Your task to perform on an android device: add a contact in the contacts app Image 0: 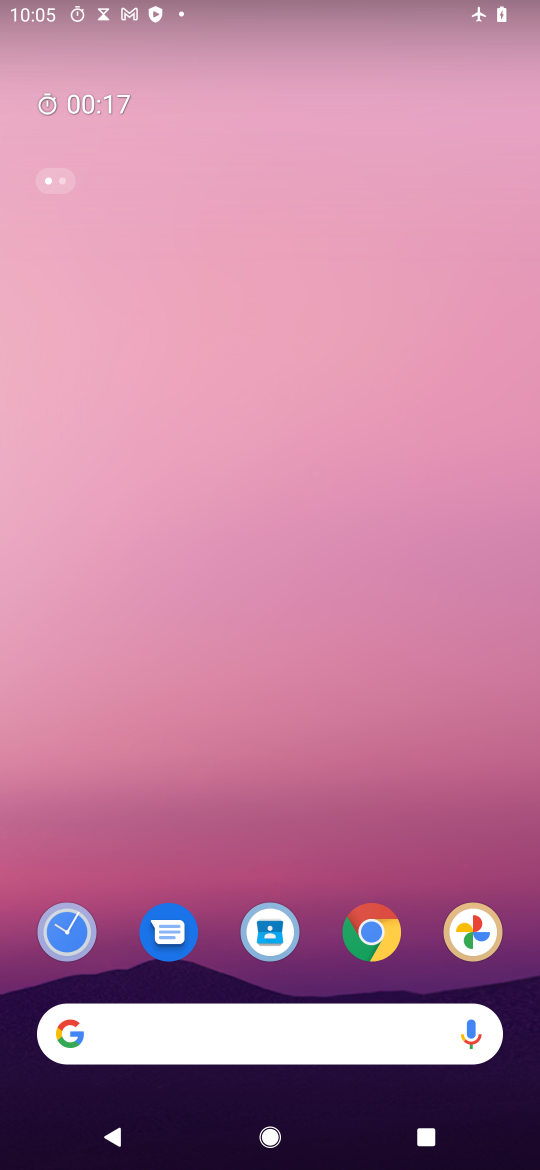
Step 0: drag from (405, 855) to (291, 206)
Your task to perform on an android device: add a contact in the contacts app Image 1: 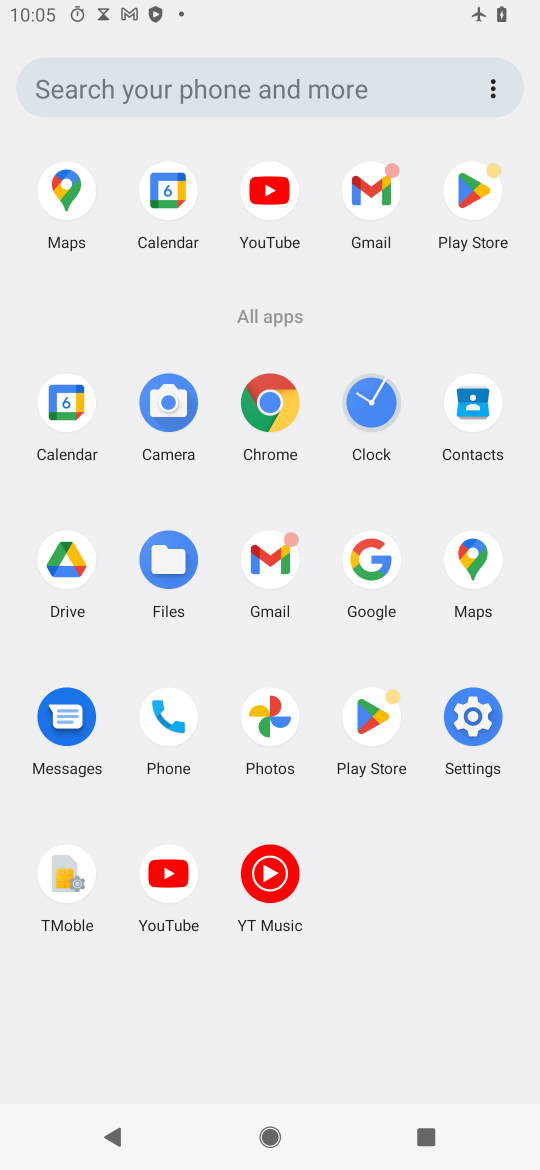
Step 1: click (479, 418)
Your task to perform on an android device: add a contact in the contacts app Image 2: 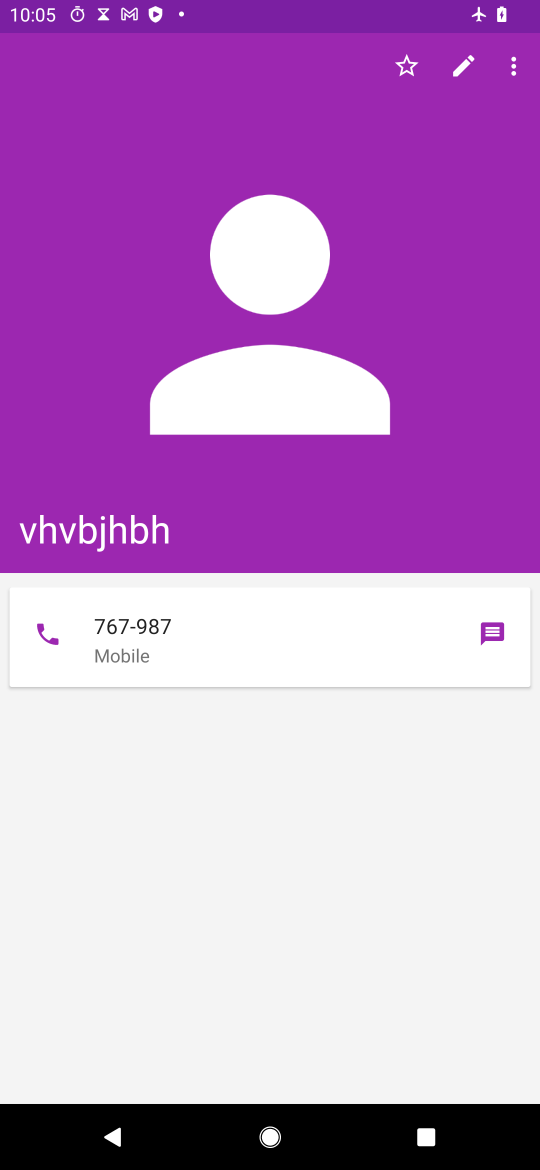
Step 2: press back button
Your task to perform on an android device: add a contact in the contacts app Image 3: 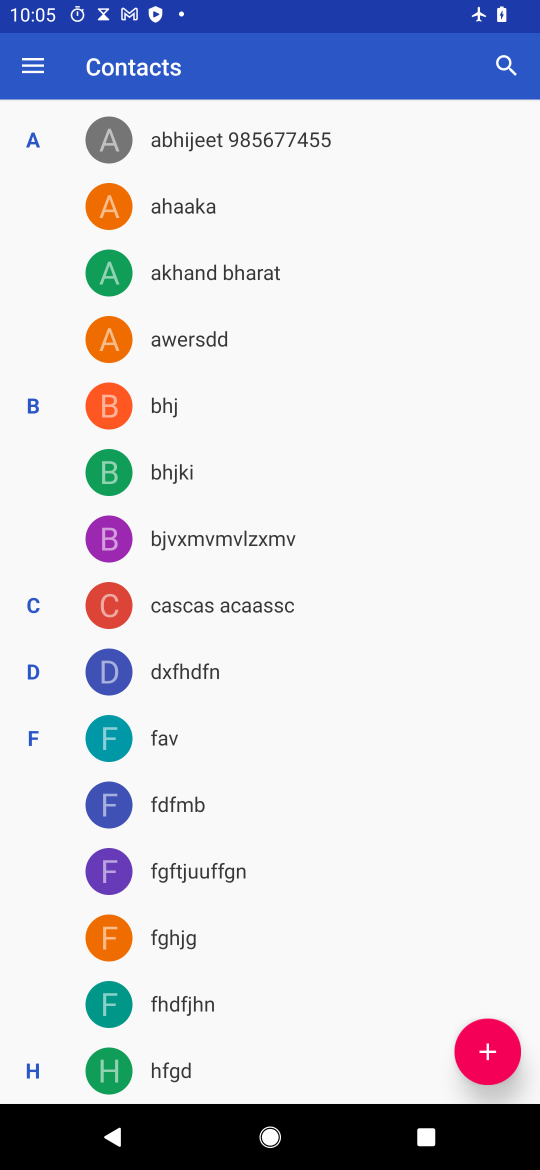
Step 3: click (494, 1030)
Your task to perform on an android device: add a contact in the contacts app Image 4: 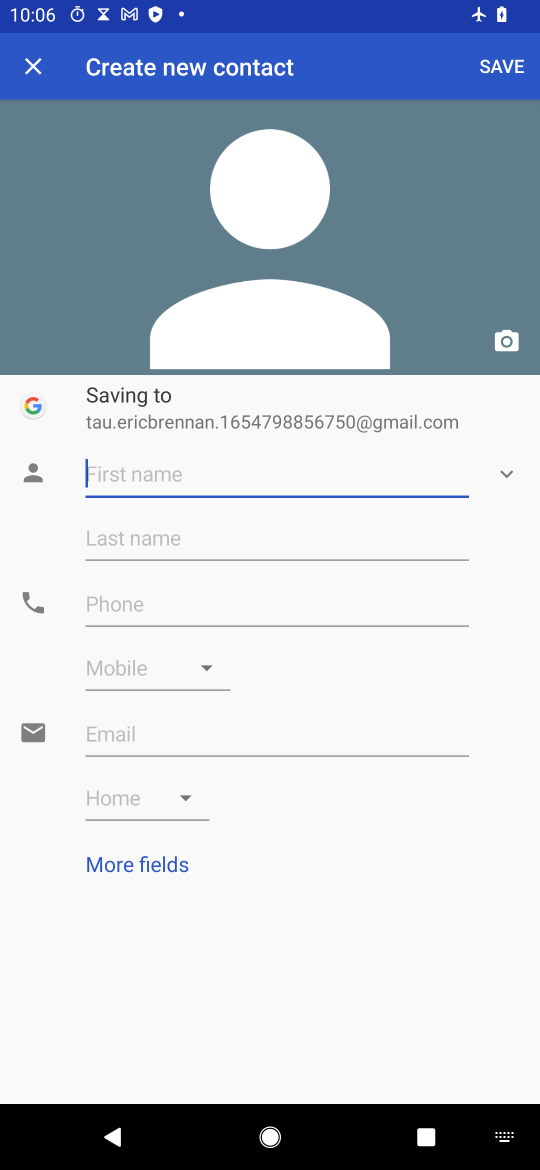
Step 4: type "njknkj"
Your task to perform on an android device: add a contact in the contacts app Image 5: 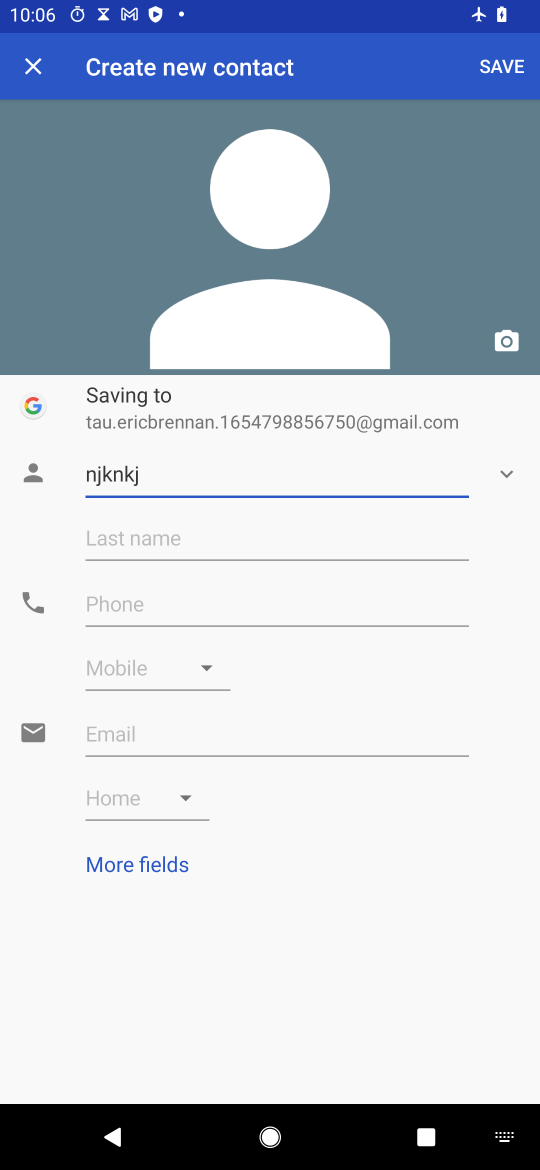
Step 5: click (313, 606)
Your task to perform on an android device: add a contact in the contacts app Image 6: 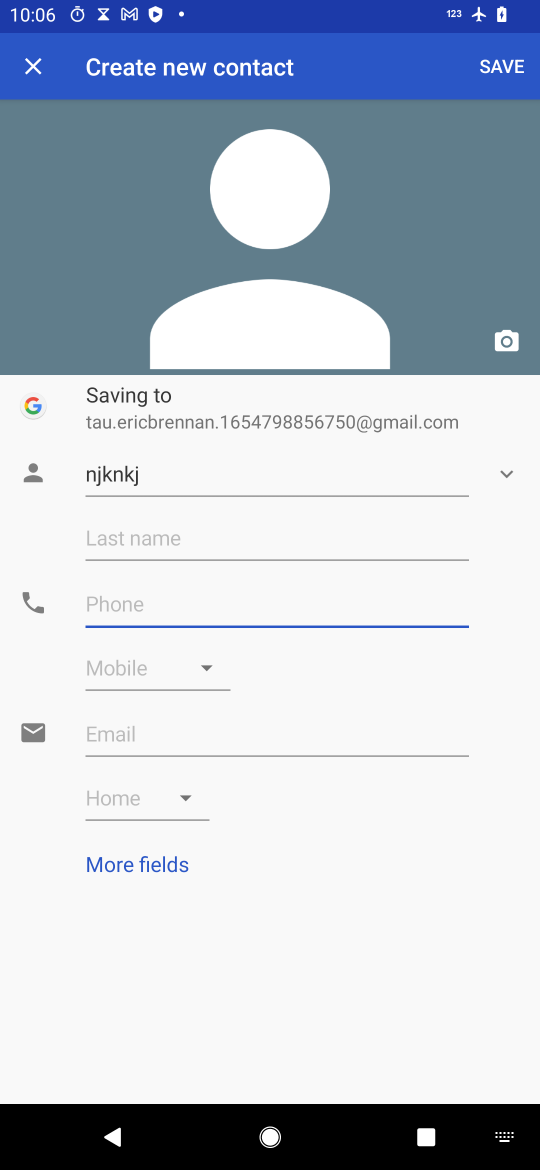
Step 6: type "789789789"
Your task to perform on an android device: add a contact in the contacts app Image 7: 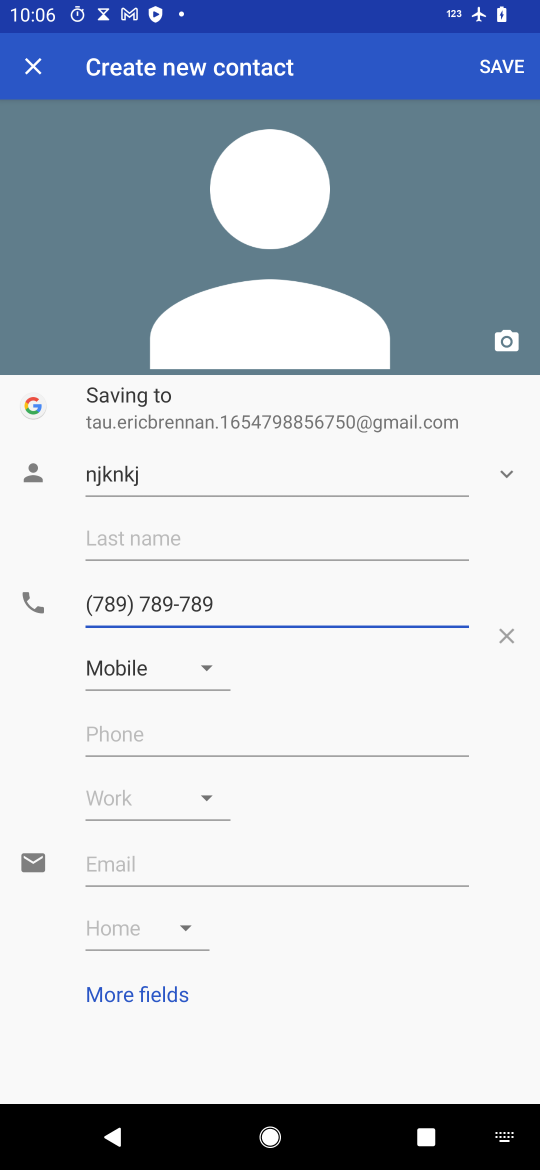
Step 7: click (506, 85)
Your task to perform on an android device: add a contact in the contacts app Image 8: 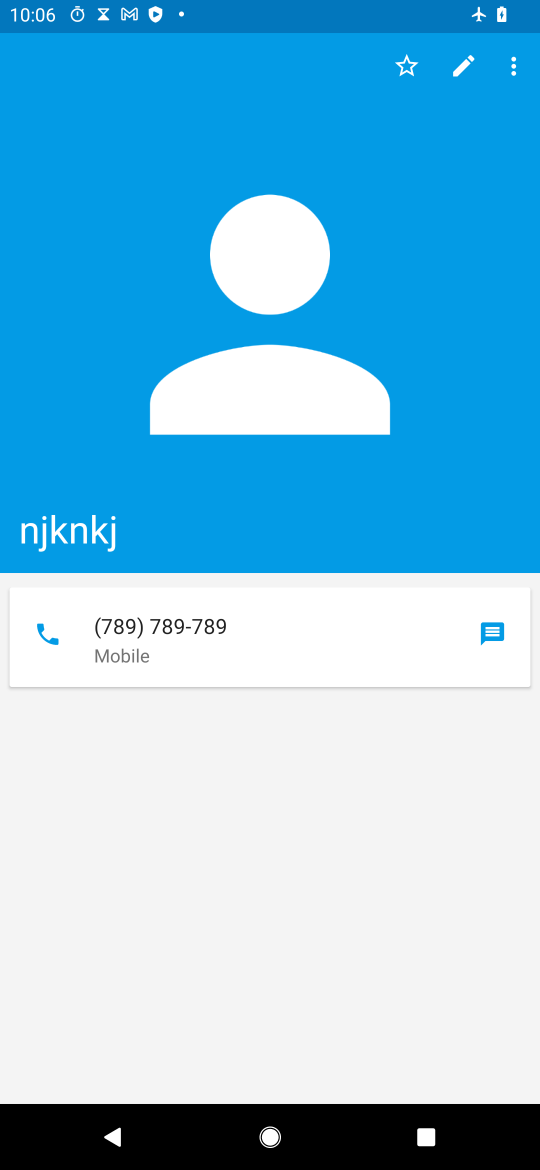
Step 8: task complete